Your task to perform on an android device: open a bookmark in the chrome app Image 0: 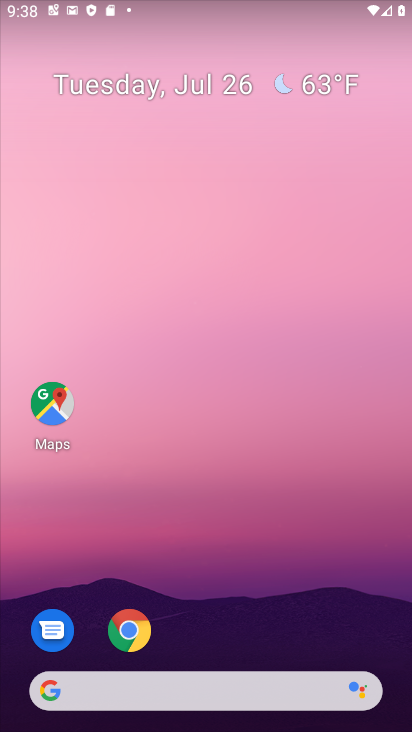
Step 0: click (53, 404)
Your task to perform on an android device: open a bookmark in the chrome app Image 1: 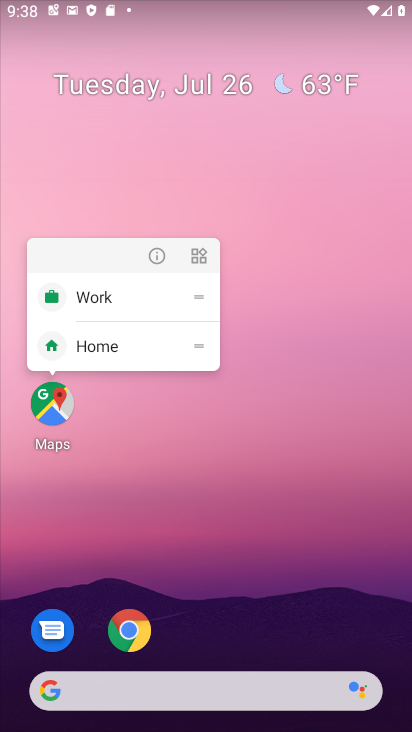
Step 1: click (53, 404)
Your task to perform on an android device: open a bookmark in the chrome app Image 2: 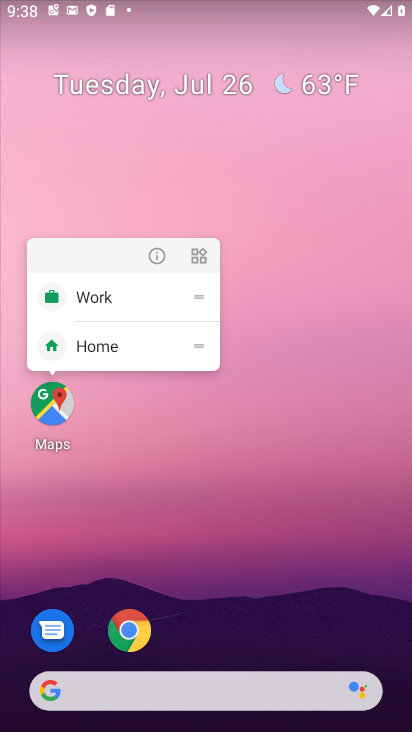
Step 2: click (135, 623)
Your task to perform on an android device: open a bookmark in the chrome app Image 3: 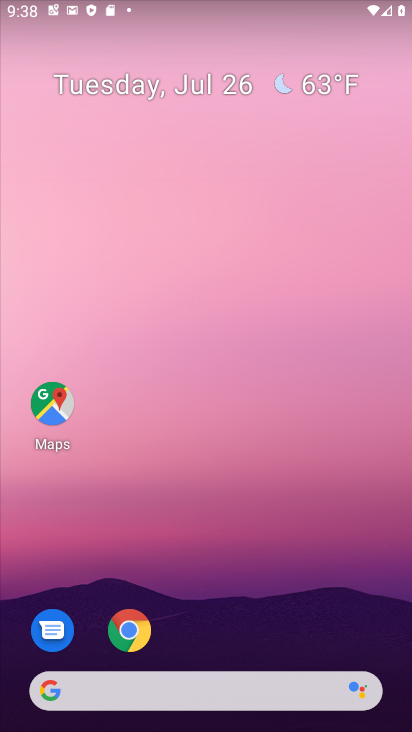
Step 3: click (127, 626)
Your task to perform on an android device: open a bookmark in the chrome app Image 4: 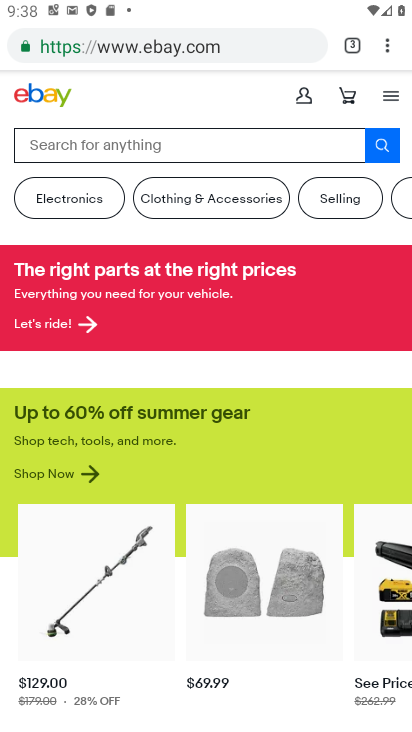
Step 4: click (388, 49)
Your task to perform on an android device: open a bookmark in the chrome app Image 5: 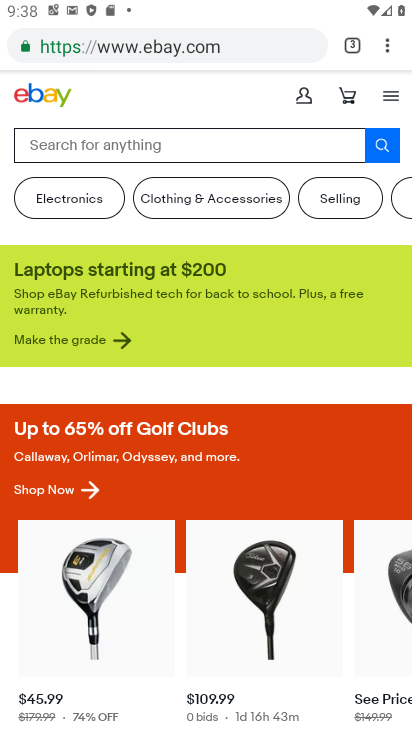
Step 5: click (388, 42)
Your task to perform on an android device: open a bookmark in the chrome app Image 6: 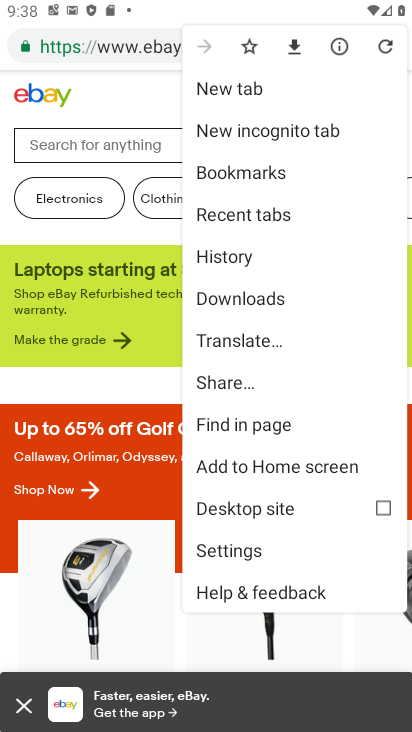
Step 6: click (283, 170)
Your task to perform on an android device: open a bookmark in the chrome app Image 7: 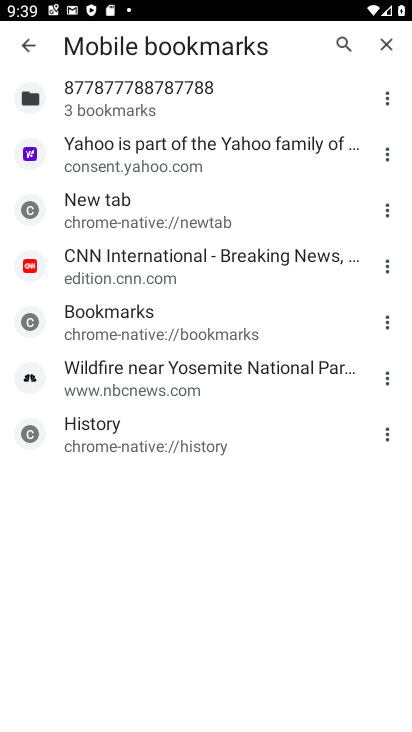
Step 7: click (170, 153)
Your task to perform on an android device: open a bookmark in the chrome app Image 8: 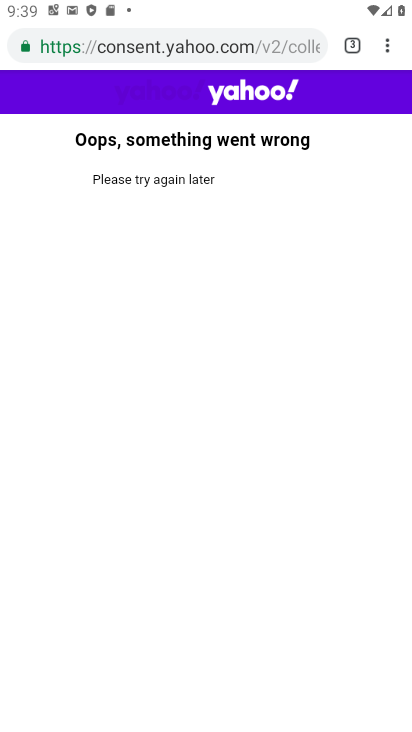
Step 8: task complete